Your task to perform on an android device: turn vacation reply on in the gmail app Image 0: 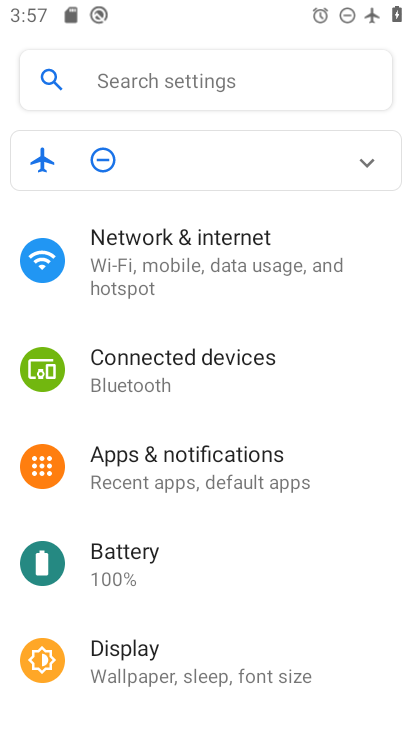
Step 0: press home button
Your task to perform on an android device: turn vacation reply on in the gmail app Image 1: 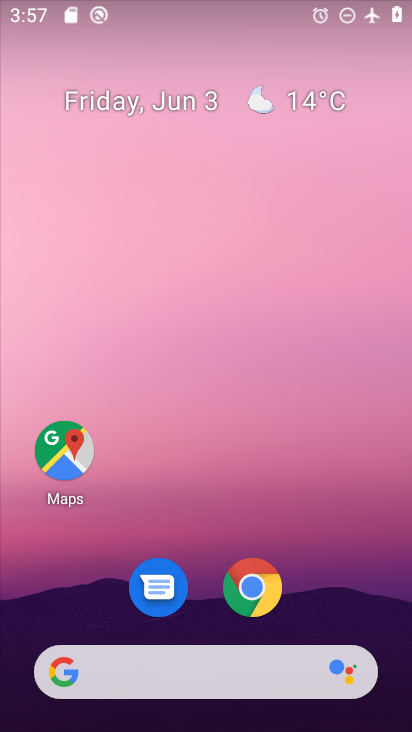
Step 1: drag from (229, 728) to (207, 138)
Your task to perform on an android device: turn vacation reply on in the gmail app Image 2: 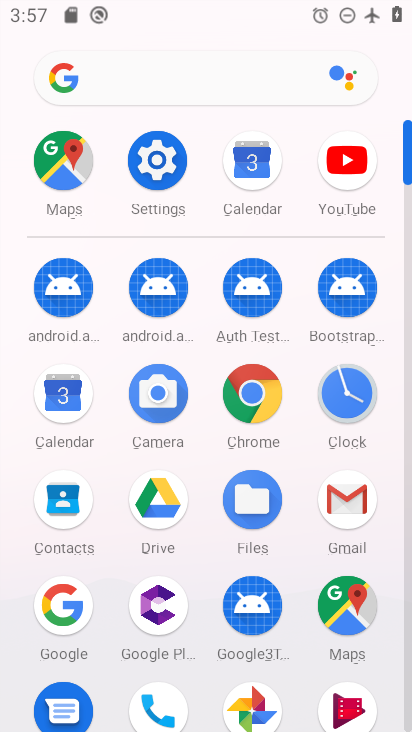
Step 2: click (348, 491)
Your task to perform on an android device: turn vacation reply on in the gmail app Image 3: 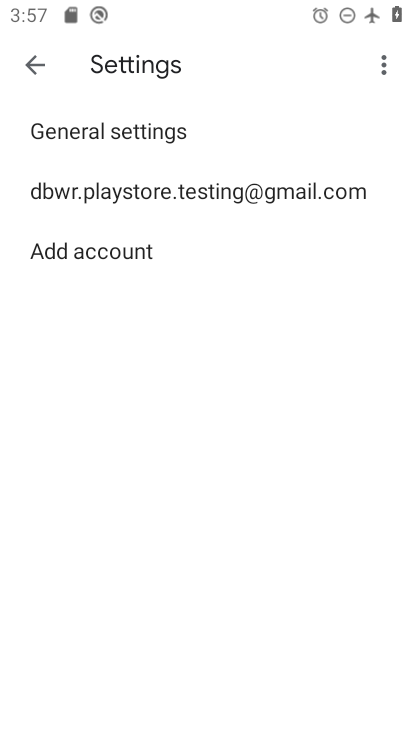
Step 3: click (138, 193)
Your task to perform on an android device: turn vacation reply on in the gmail app Image 4: 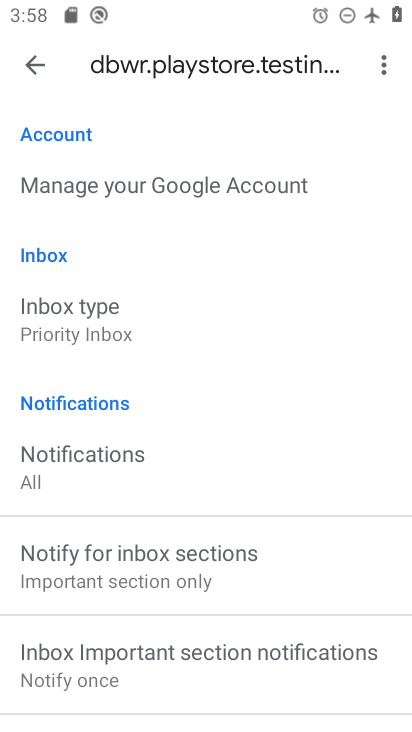
Step 4: drag from (130, 620) to (77, 251)
Your task to perform on an android device: turn vacation reply on in the gmail app Image 5: 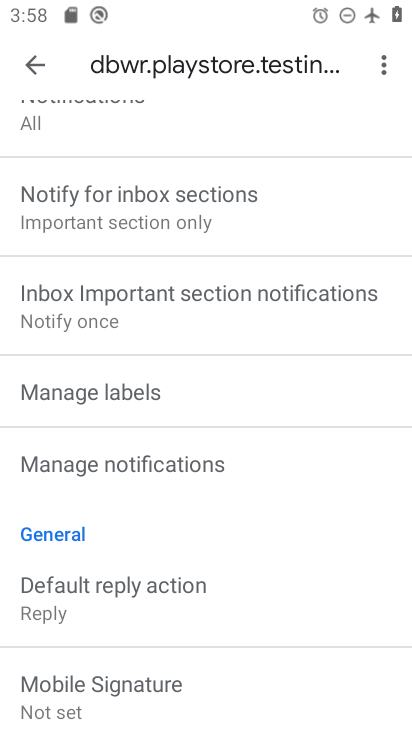
Step 5: drag from (128, 665) to (107, 399)
Your task to perform on an android device: turn vacation reply on in the gmail app Image 6: 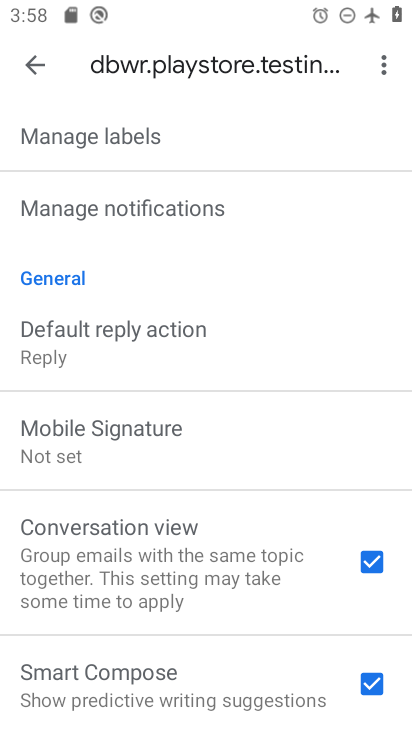
Step 6: drag from (157, 686) to (135, 368)
Your task to perform on an android device: turn vacation reply on in the gmail app Image 7: 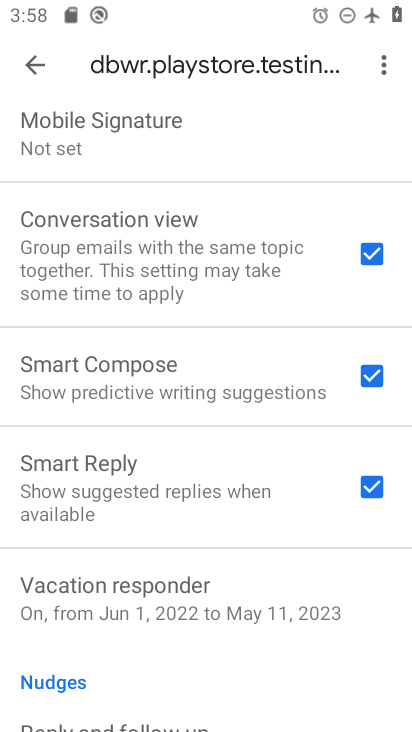
Step 7: click (180, 594)
Your task to perform on an android device: turn vacation reply on in the gmail app Image 8: 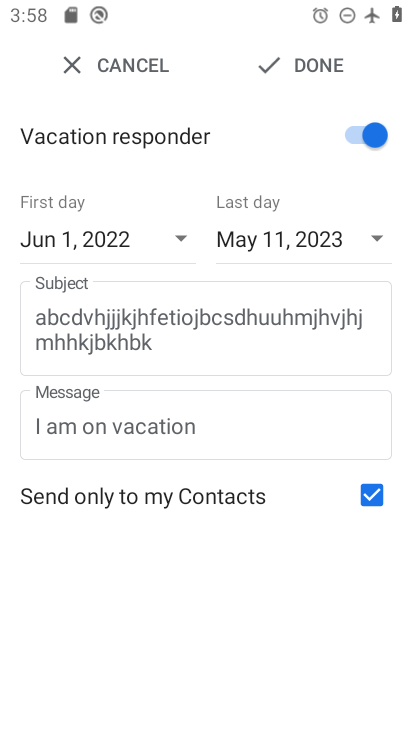
Step 8: task complete